Your task to perform on an android device: Open the Play Movies app and select the watchlist tab. Image 0: 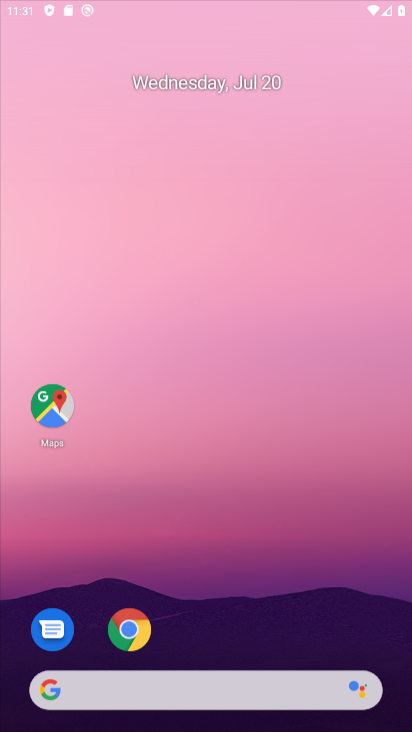
Step 0: click (179, 377)
Your task to perform on an android device: Open the Play Movies app and select the watchlist tab. Image 1: 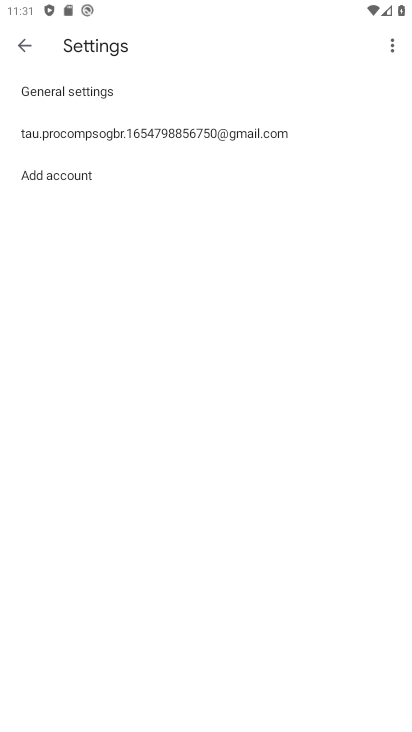
Step 1: drag from (160, 350) to (210, 7)
Your task to perform on an android device: Open the Play Movies app and select the watchlist tab. Image 2: 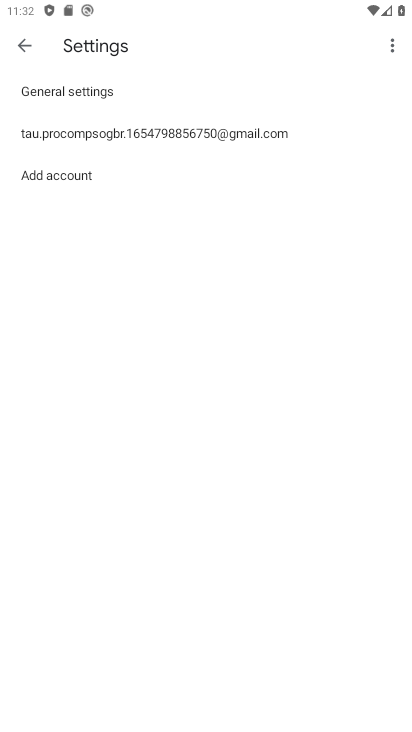
Step 2: drag from (124, 410) to (150, 113)
Your task to perform on an android device: Open the Play Movies app and select the watchlist tab. Image 3: 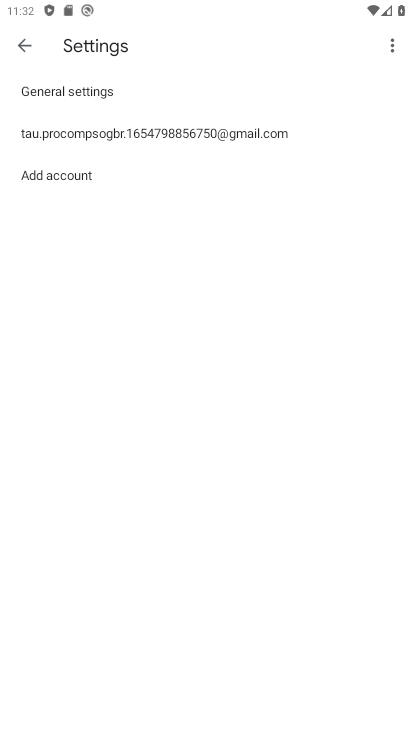
Step 3: press home button
Your task to perform on an android device: Open the Play Movies app and select the watchlist tab. Image 4: 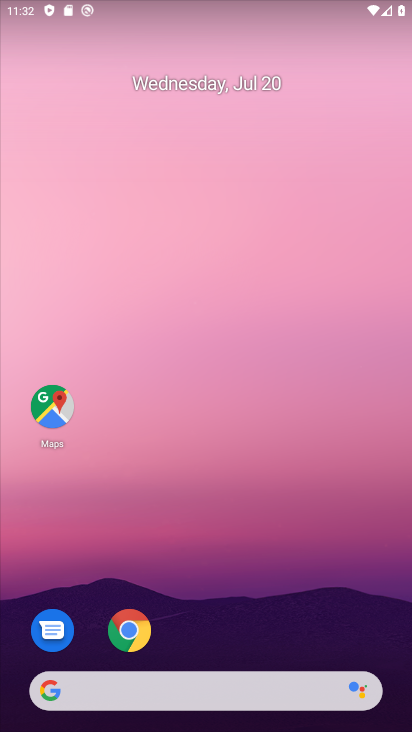
Step 4: drag from (206, 619) to (206, 80)
Your task to perform on an android device: Open the Play Movies app and select the watchlist tab. Image 5: 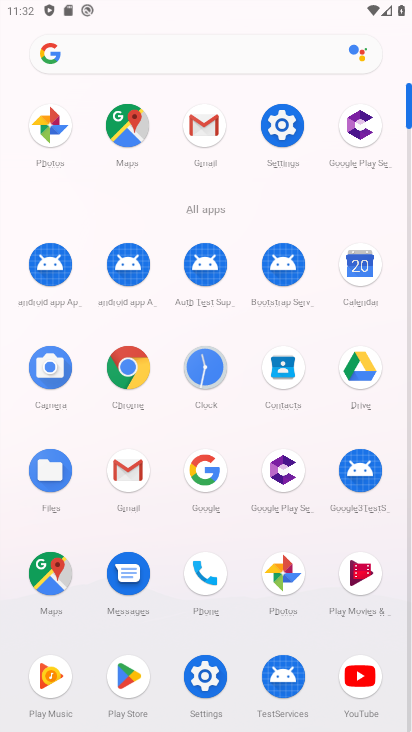
Step 5: click (355, 581)
Your task to perform on an android device: Open the Play Movies app and select the watchlist tab. Image 6: 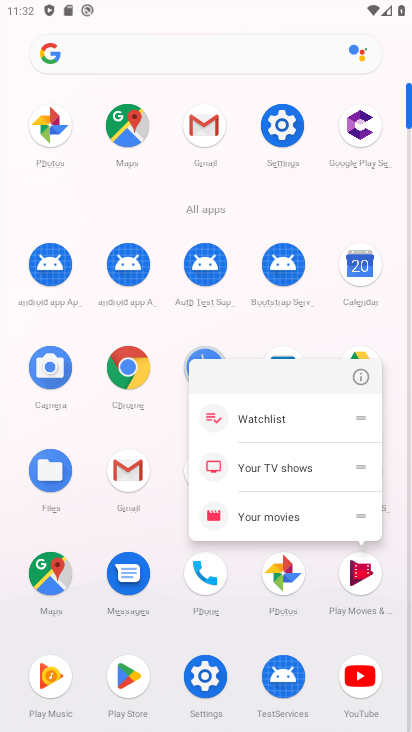
Step 6: click (356, 382)
Your task to perform on an android device: Open the Play Movies app and select the watchlist tab. Image 7: 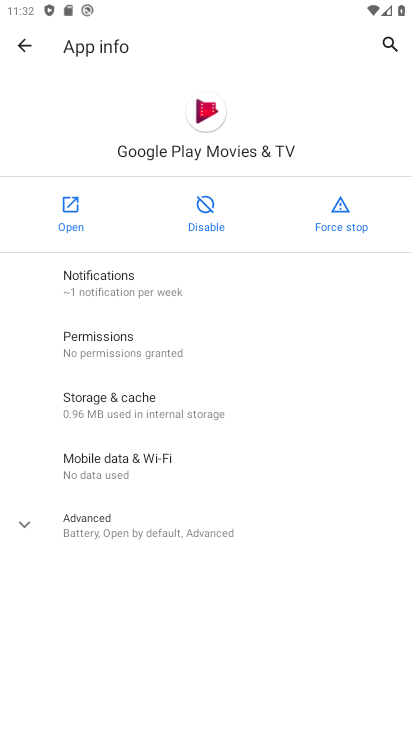
Step 7: click (60, 218)
Your task to perform on an android device: Open the Play Movies app and select the watchlist tab. Image 8: 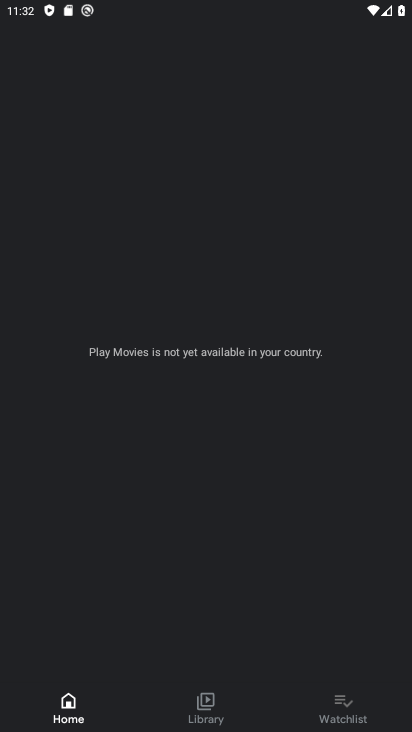
Step 8: drag from (191, 475) to (193, 235)
Your task to perform on an android device: Open the Play Movies app and select the watchlist tab. Image 9: 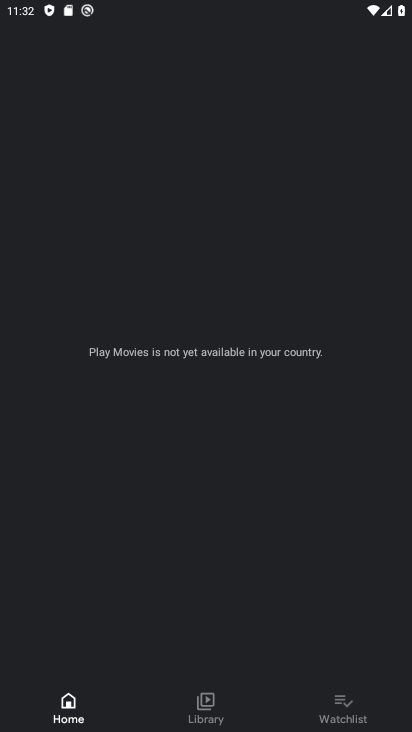
Step 9: click (339, 713)
Your task to perform on an android device: Open the Play Movies app and select the watchlist tab. Image 10: 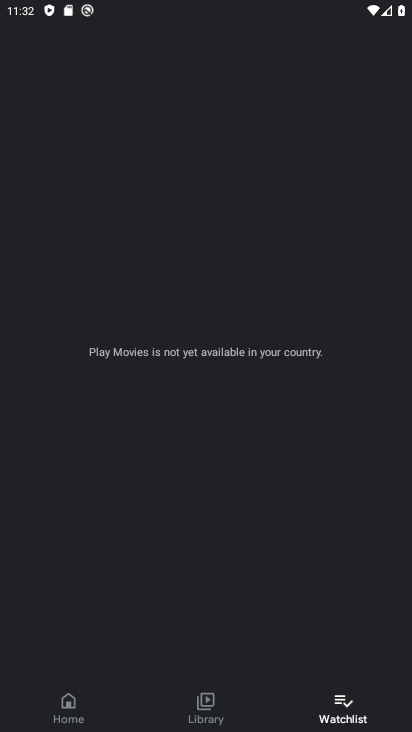
Step 10: task complete